Your task to perform on an android device: Find coffee shops on Maps Image 0: 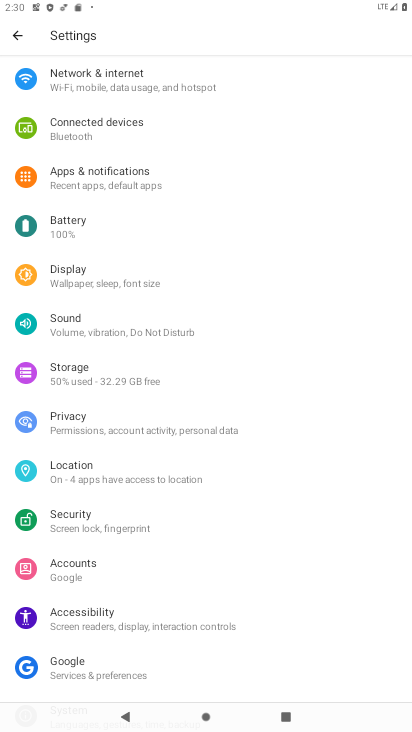
Step 0: press home button
Your task to perform on an android device: Find coffee shops on Maps Image 1: 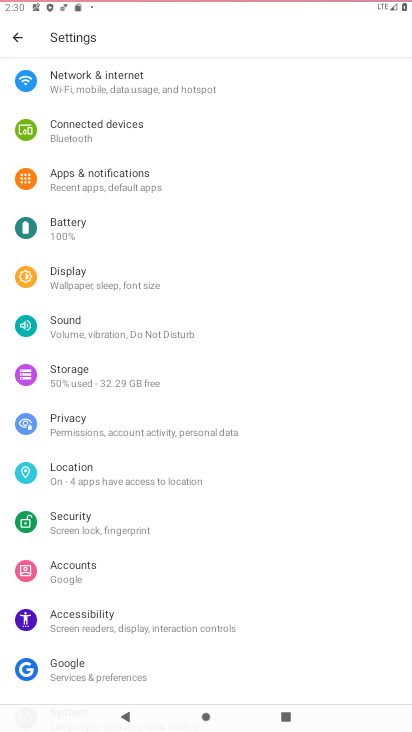
Step 1: drag from (106, 643) to (197, 180)
Your task to perform on an android device: Find coffee shops on Maps Image 2: 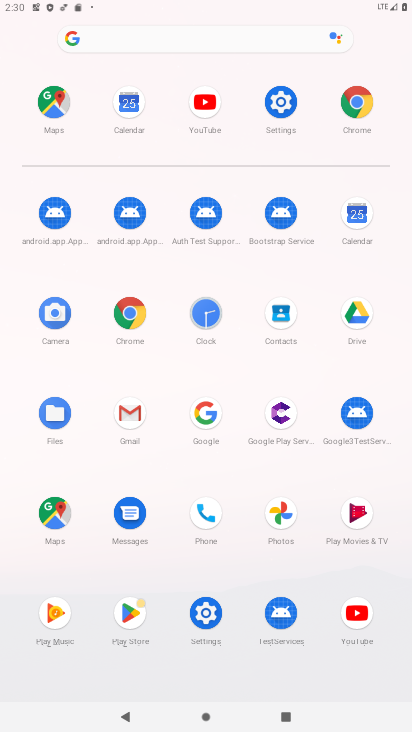
Step 2: click (54, 519)
Your task to perform on an android device: Find coffee shops on Maps Image 3: 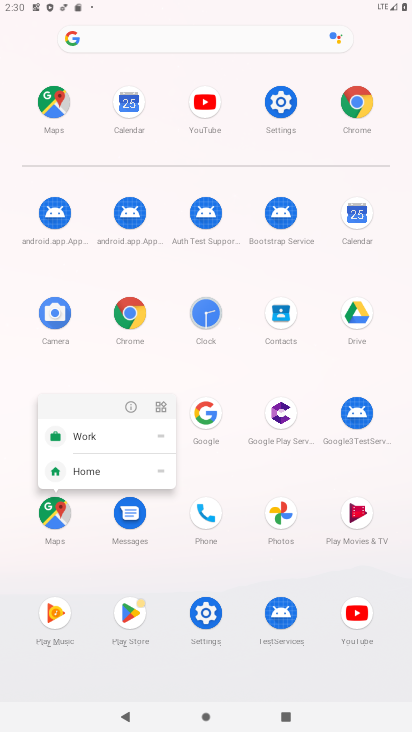
Step 3: click (132, 405)
Your task to perform on an android device: Find coffee shops on Maps Image 4: 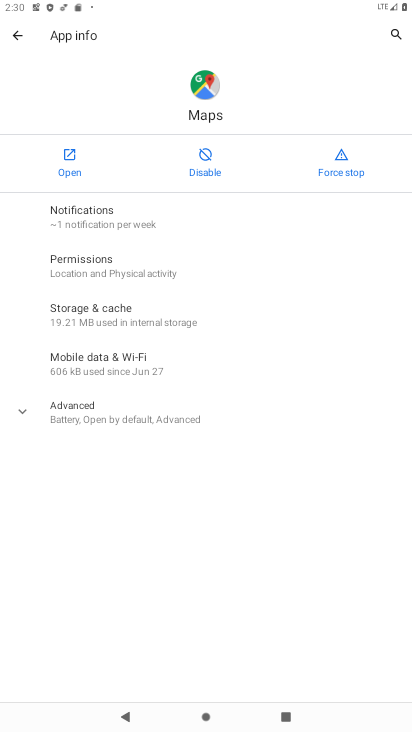
Step 4: click (63, 158)
Your task to perform on an android device: Find coffee shops on Maps Image 5: 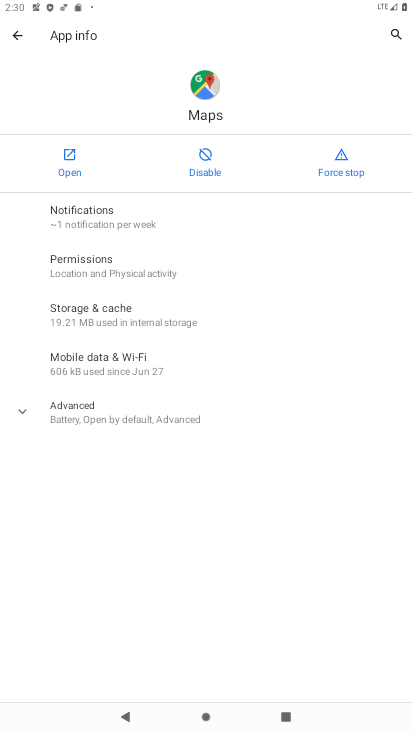
Step 5: click (63, 158)
Your task to perform on an android device: Find coffee shops on Maps Image 6: 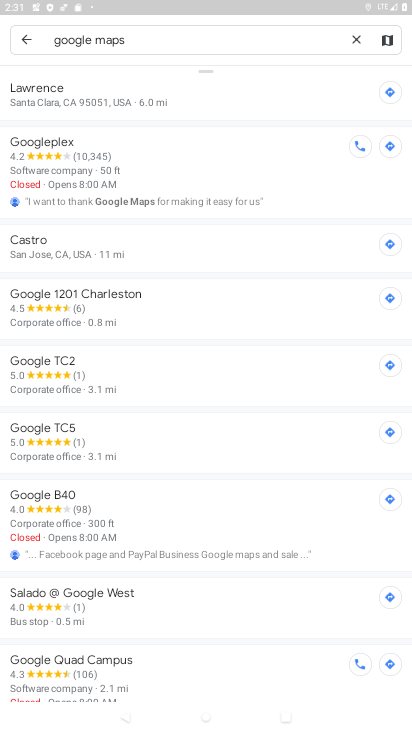
Step 6: click (355, 34)
Your task to perform on an android device: Find coffee shops on Maps Image 7: 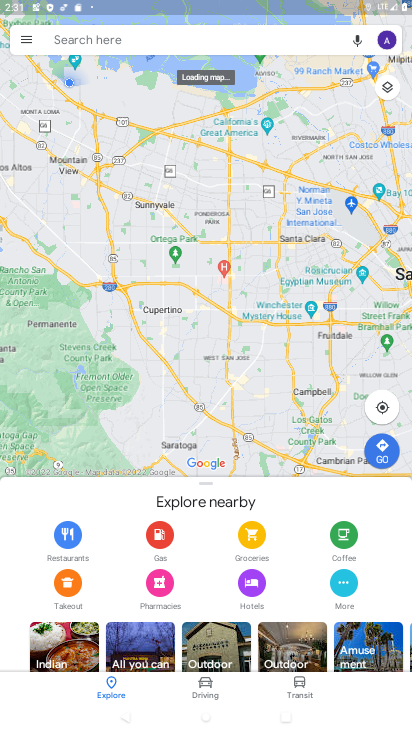
Step 7: click (83, 48)
Your task to perform on an android device: Find coffee shops on Maps Image 8: 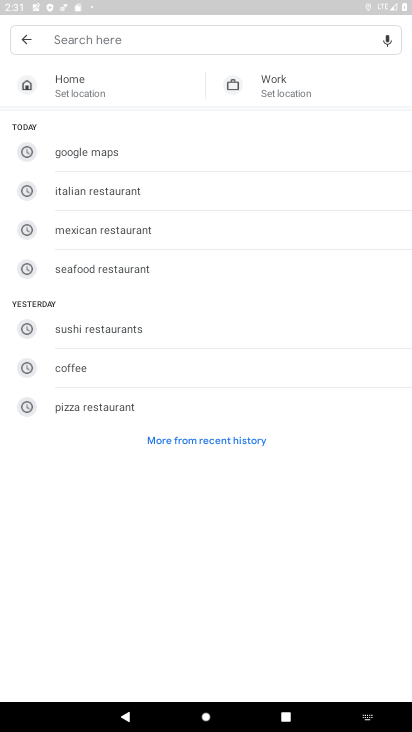
Step 8: type "coffee"
Your task to perform on an android device: Find coffee shops on Maps Image 9: 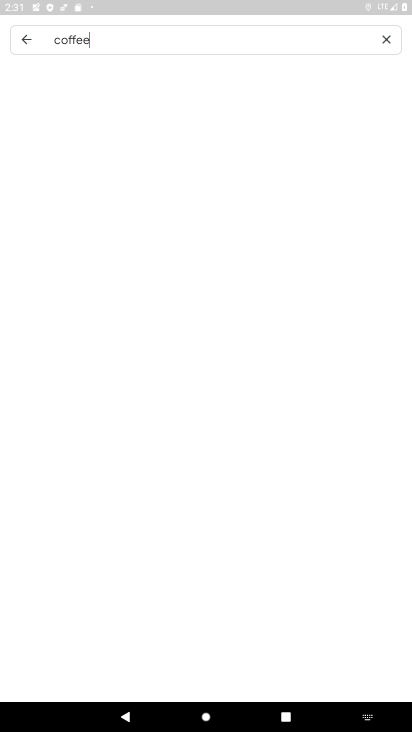
Step 9: type ""
Your task to perform on an android device: Find coffee shops on Maps Image 10: 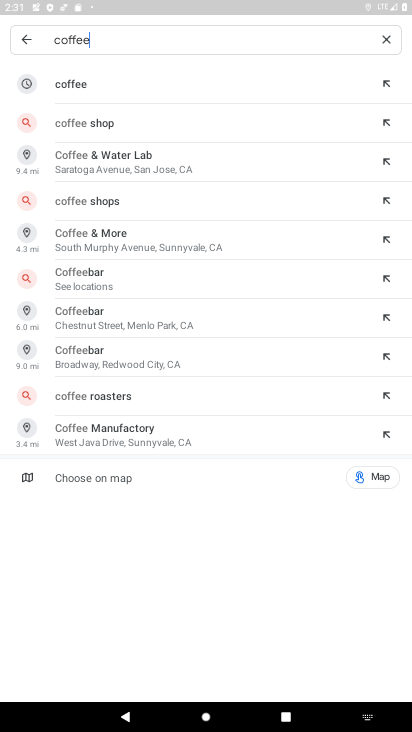
Step 10: click (78, 79)
Your task to perform on an android device: Find coffee shops on Maps Image 11: 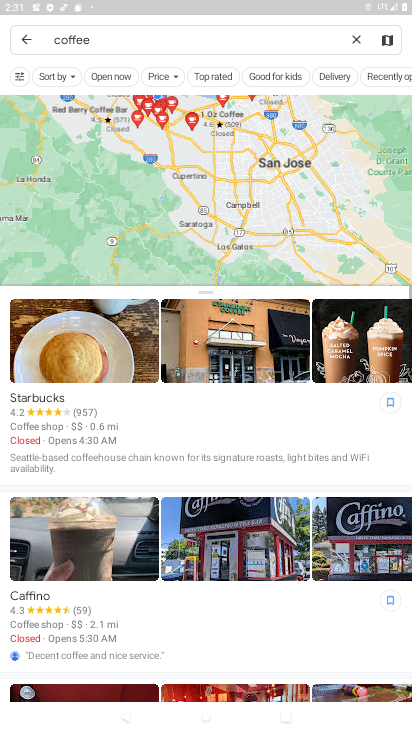
Step 11: task complete